Your task to perform on an android device: Open my contact list Image 0: 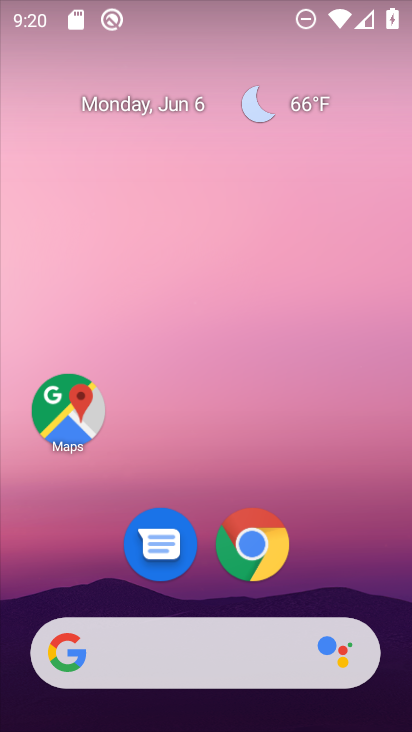
Step 0: drag from (221, 575) to (216, 247)
Your task to perform on an android device: Open my contact list Image 1: 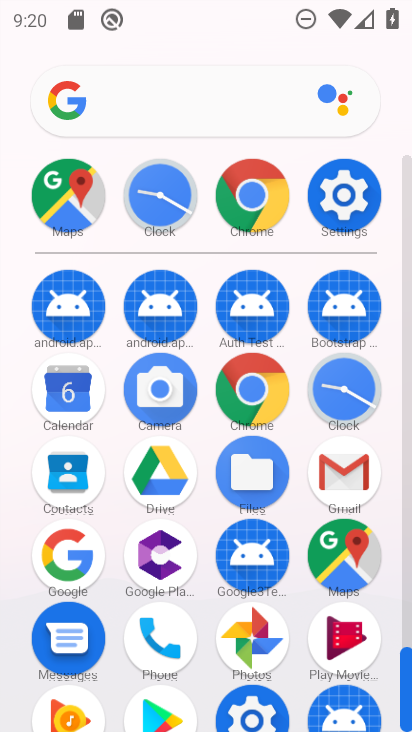
Step 1: click (78, 475)
Your task to perform on an android device: Open my contact list Image 2: 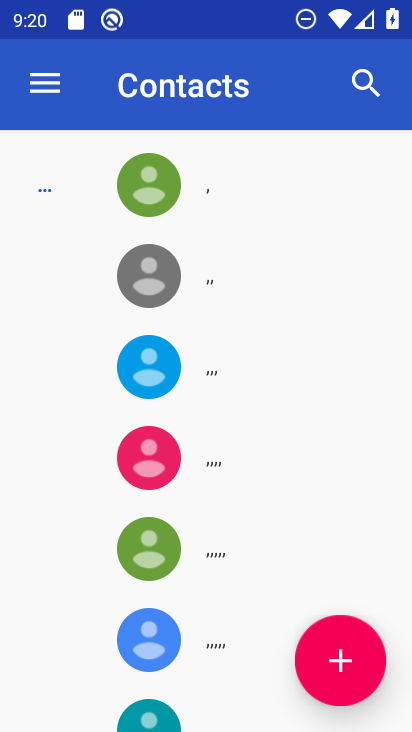
Step 2: task complete